Your task to perform on an android device: Is it going to rain tomorrow? Image 0: 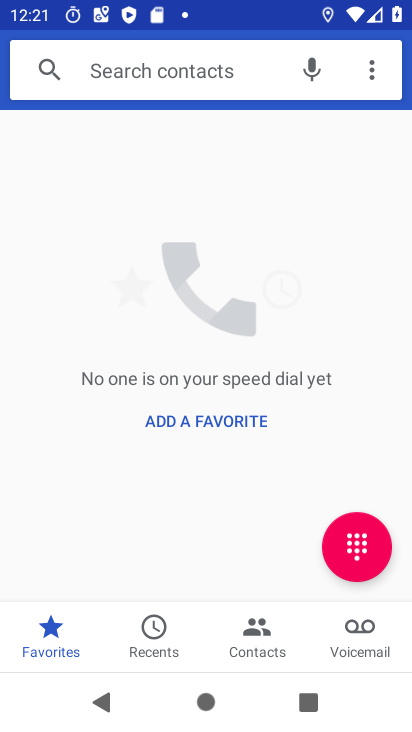
Step 0: press home button
Your task to perform on an android device: Is it going to rain tomorrow? Image 1: 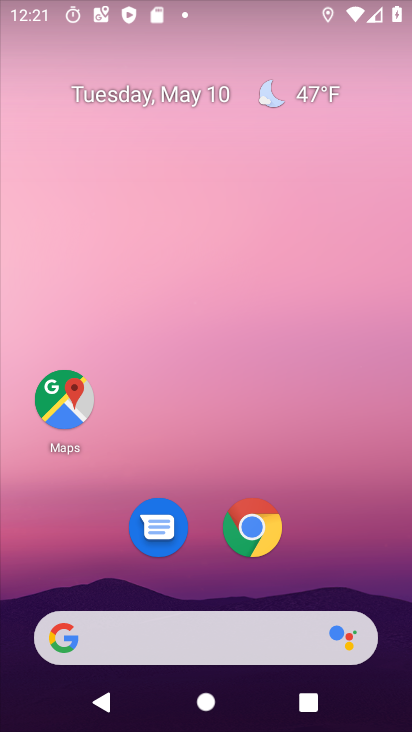
Step 1: drag from (379, 578) to (337, 38)
Your task to perform on an android device: Is it going to rain tomorrow? Image 2: 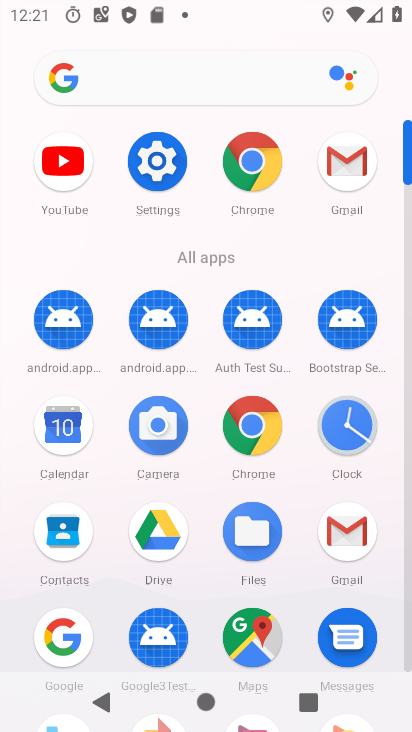
Step 2: click (246, 180)
Your task to perform on an android device: Is it going to rain tomorrow? Image 3: 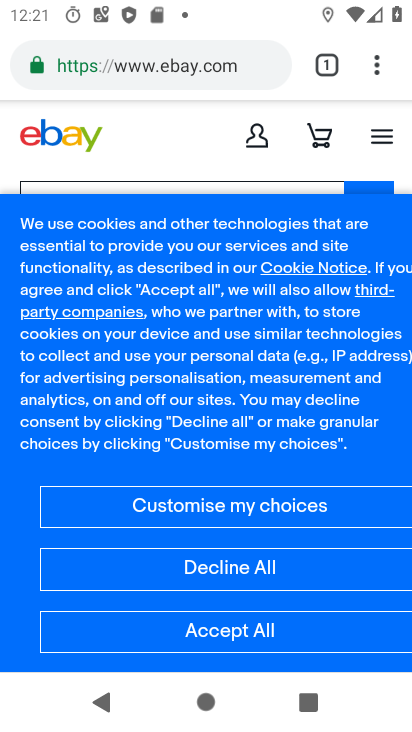
Step 3: click (202, 46)
Your task to perform on an android device: Is it going to rain tomorrow? Image 4: 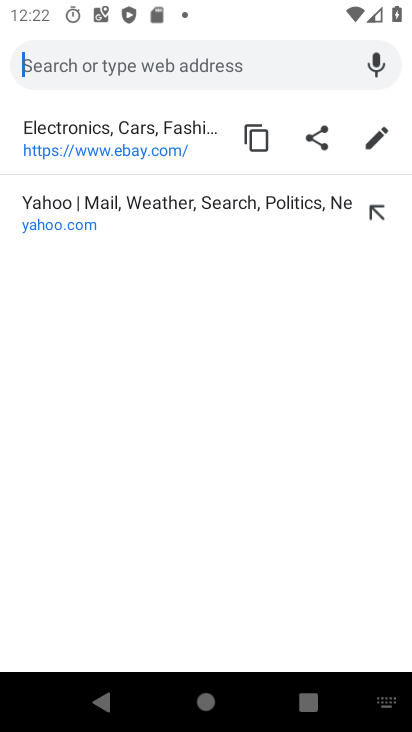
Step 4: type "is it going to rain tomorrow"
Your task to perform on an android device: Is it going to rain tomorrow? Image 5: 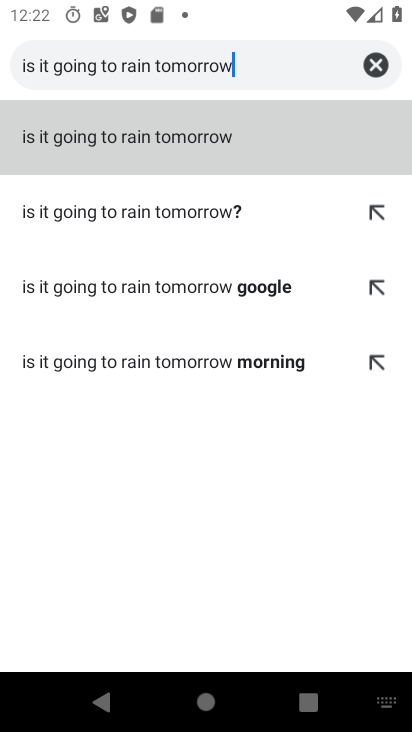
Step 5: click (180, 127)
Your task to perform on an android device: Is it going to rain tomorrow? Image 6: 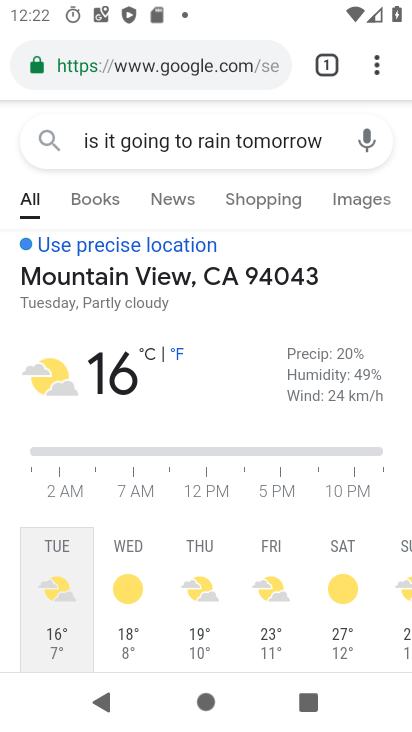
Step 6: task complete